Your task to perform on an android device: add a contact in the contacts app Image 0: 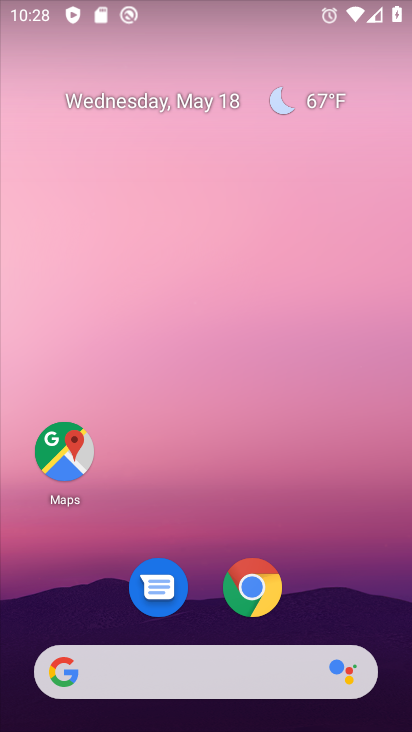
Step 0: drag from (351, 551) to (361, 240)
Your task to perform on an android device: add a contact in the contacts app Image 1: 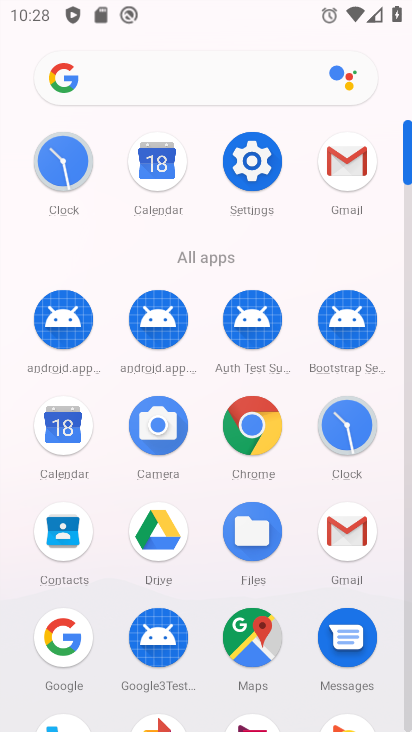
Step 1: click (73, 531)
Your task to perform on an android device: add a contact in the contacts app Image 2: 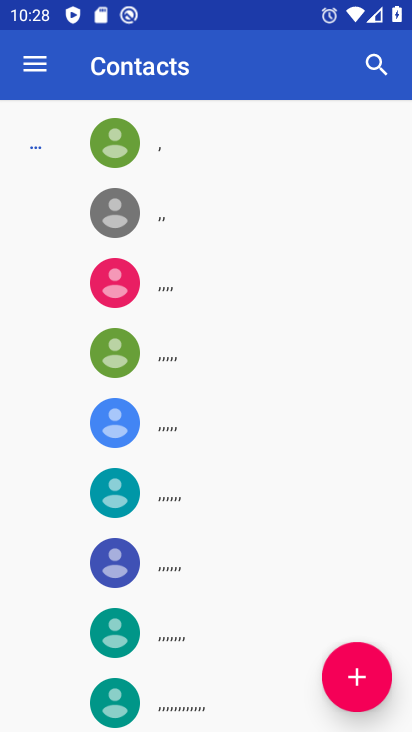
Step 2: click (351, 660)
Your task to perform on an android device: add a contact in the contacts app Image 3: 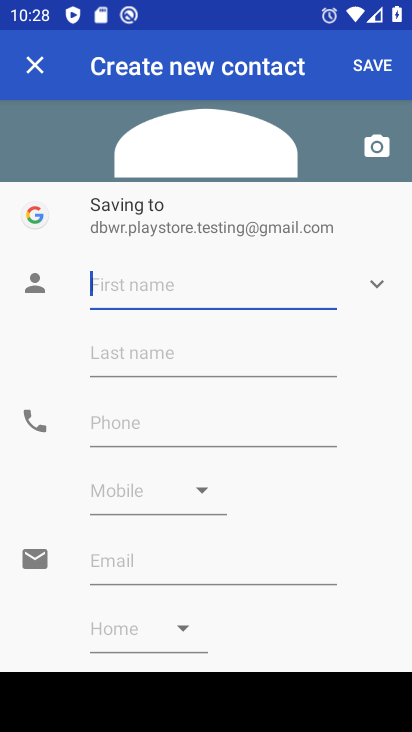
Step 3: click (155, 410)
Your task to perform on an android device: add a contact in the contacts app Image 4: 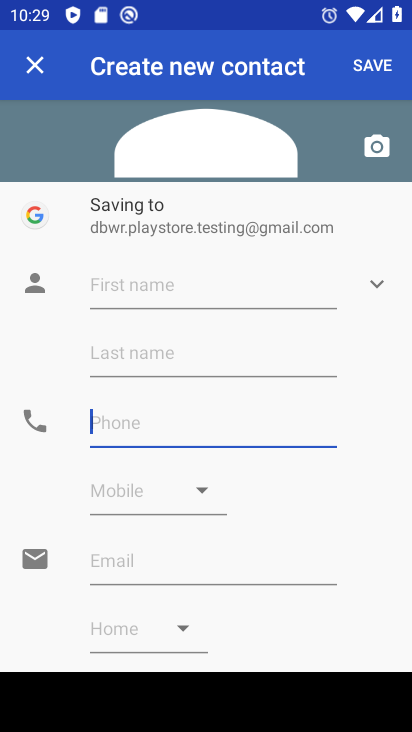
Step 4: type "90876"
Your task to perform on an android device: add a contact in the contacts app Image 5: 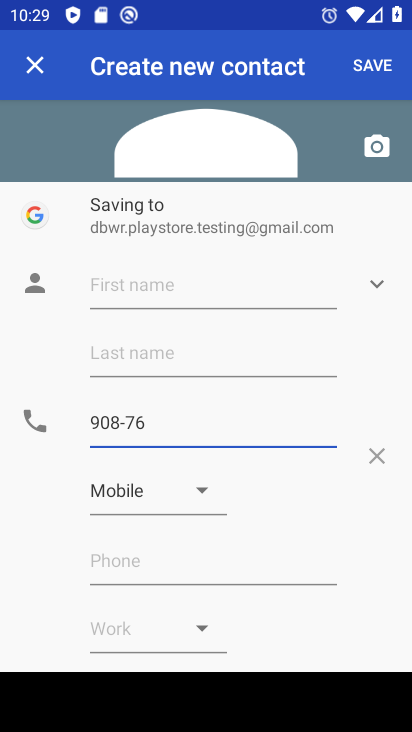
Step 5: click (218, 287)
Your task to perform on an android device: add a contact in the contacts app Image 6: 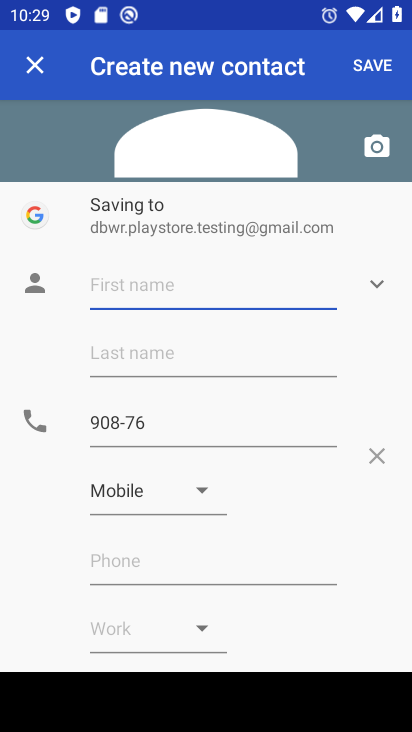
Step 6: type "sgfyyyds"
Your task to perform on an android device: add a contact in the contacts app Image 7: 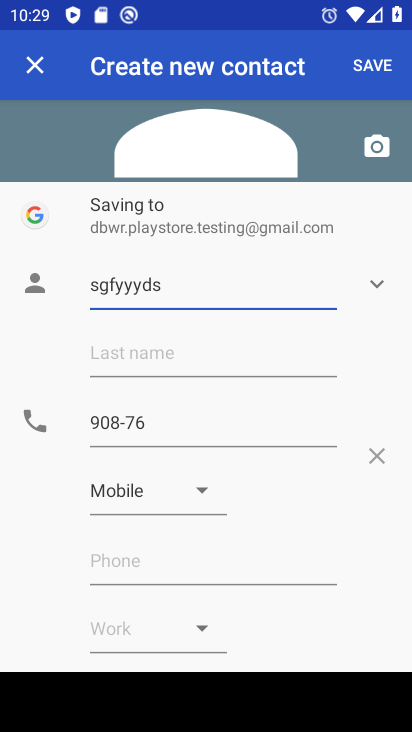
Step 7: click (384, 61)
Your task to perform on an android device: add a contact in the contacts app Image 8: 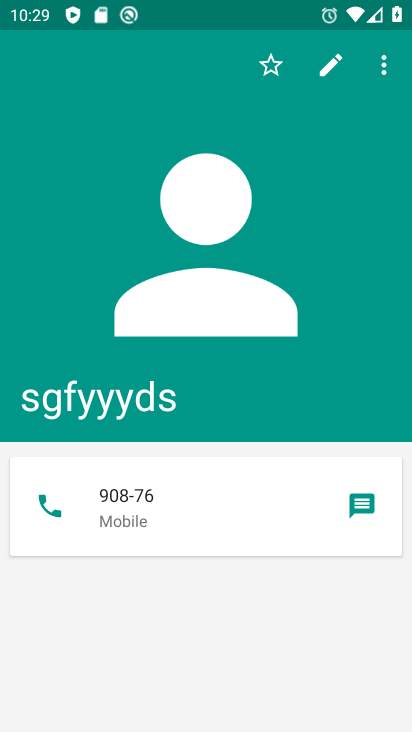
Step 8: task complete